Your task to perform on an android device: Search for "razer deathadder" on bestbuy.com, select the first entry, add it to the cart, then select checkout. Image 0: 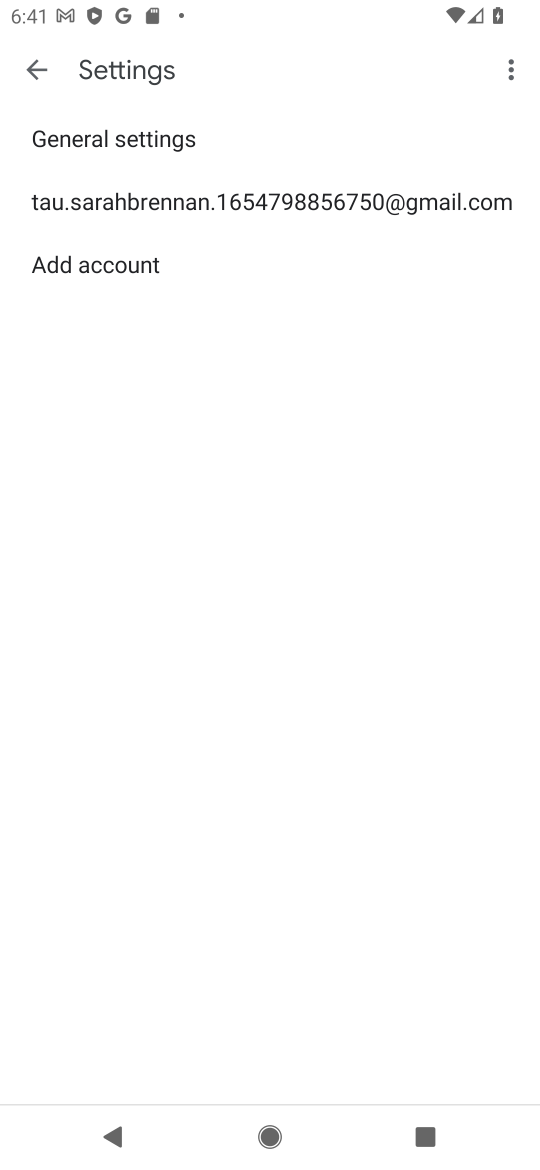
Step 0: task complete